Your task to perform on an android device: Go to Maps Image 0: 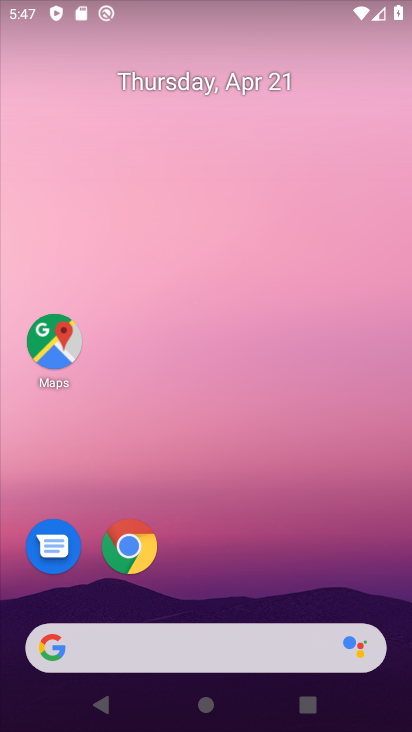
Step 0: click (65, 338)
Your task to perform on an android device: Go to Maps Image 1: 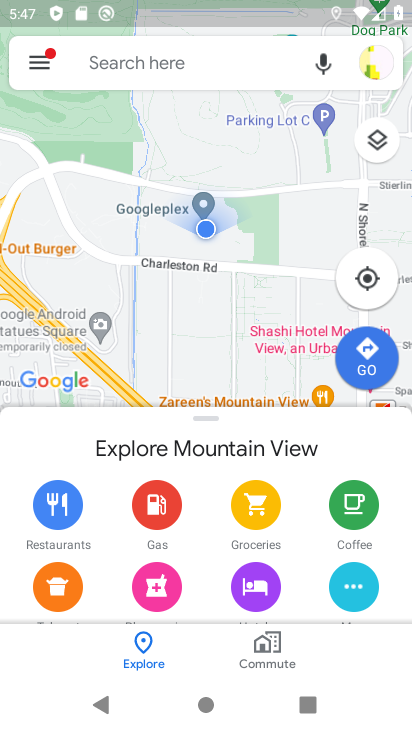
Step 1: task complete